Your task to perform on an android device: Open the web browser Image 0: 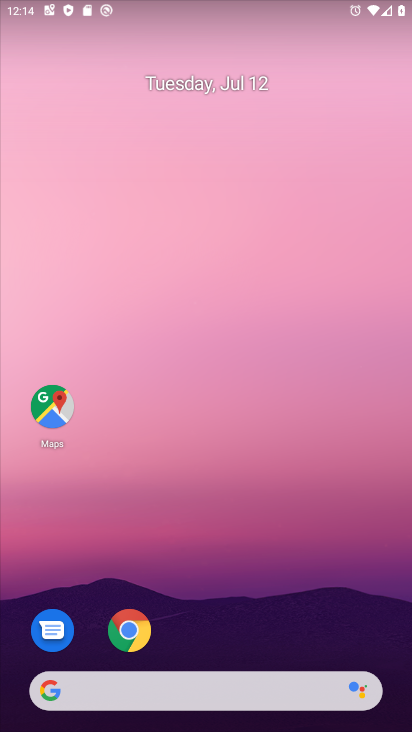
Step 0: click (128, 631)
Your task to perform on an android device: Open the web browser Image 1: 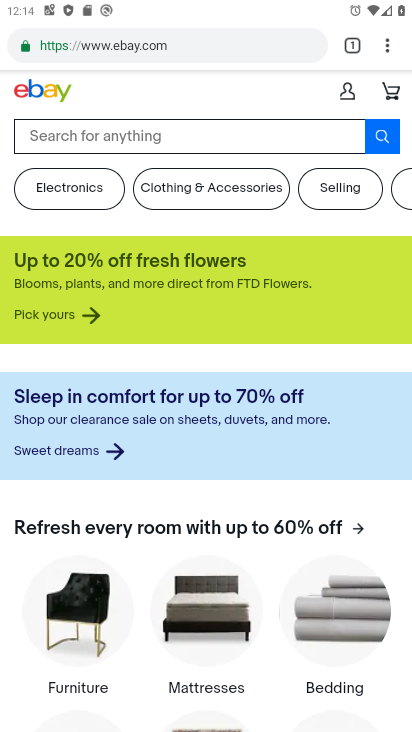
Step 1: task complete